Your task to perform on an android device: Open Google Chrome Image 0: 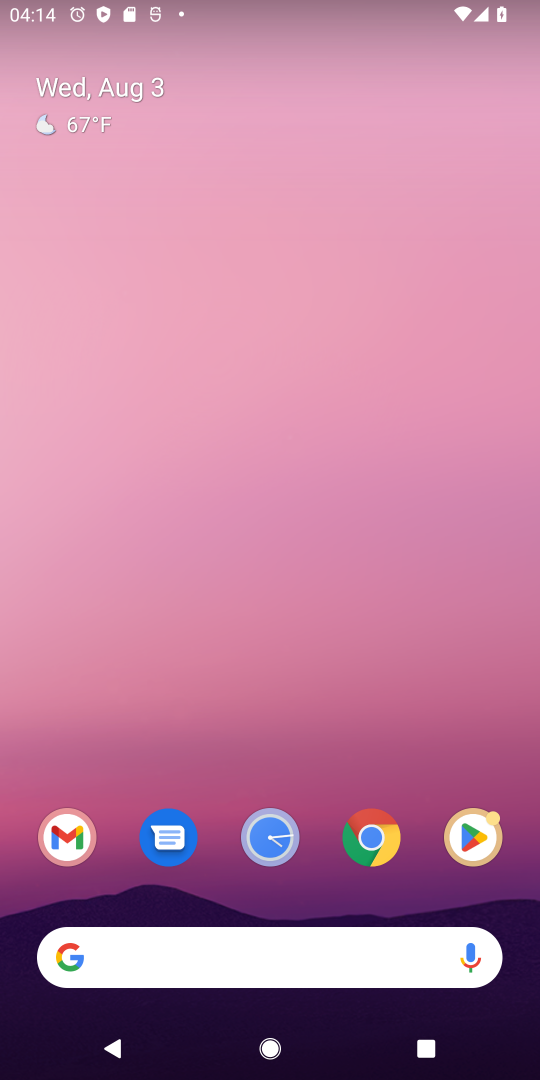
Step 0: click (368, 834)
Your task to perform on an android device: Open Google Chrome Image 1: 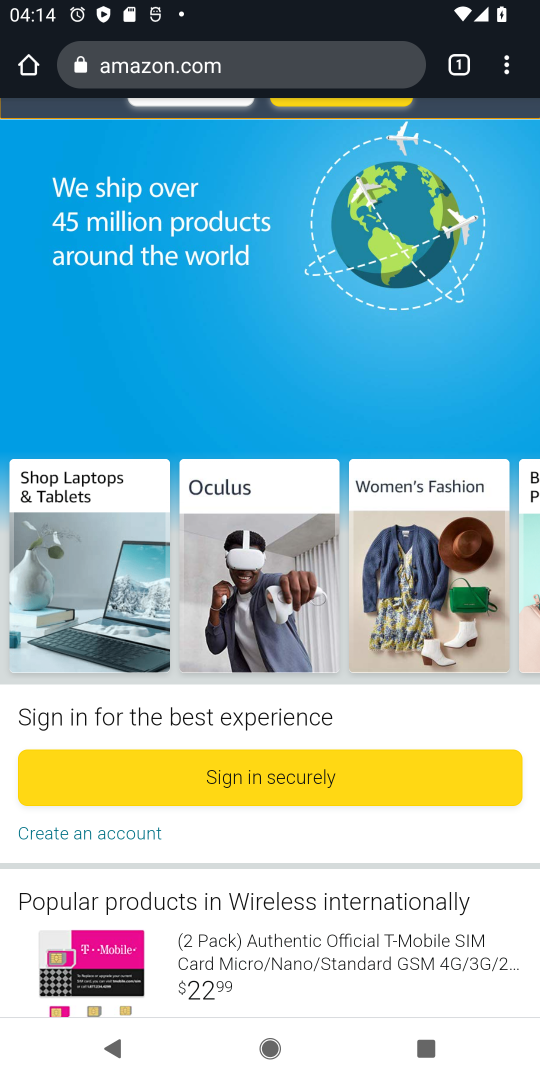
Step 1: task complete